Your task to perform on an android device: Open battery settings Image 0: 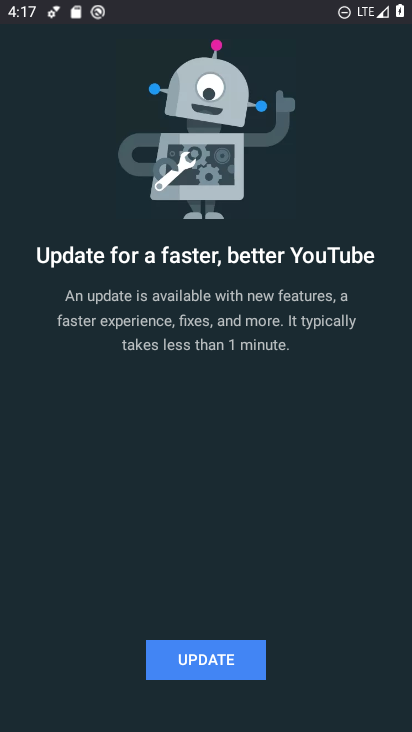
Step 0: press home button
Your task to perform on an android device: Open battery settings Image 1: 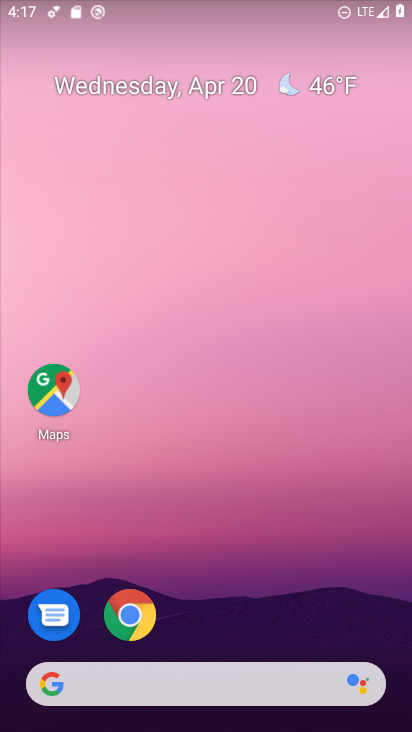
Step 1: drag from (286, 448) to (351, 78)
Your task to perform on an android device: Open battery settings Image 2: 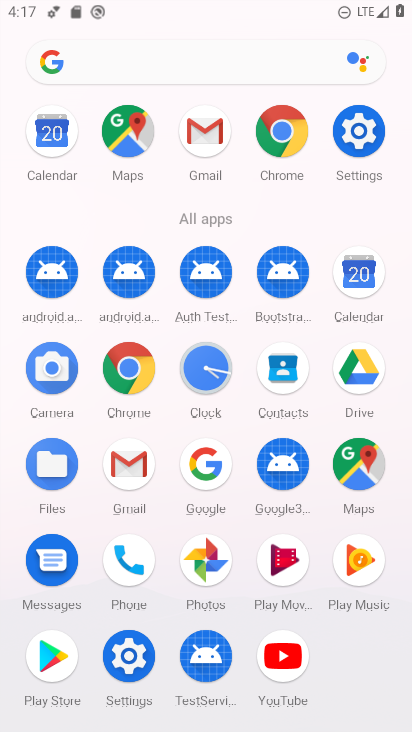
Step 2: click (361, 125)
Your task to perform on an android device: Open battery settings Image 3: 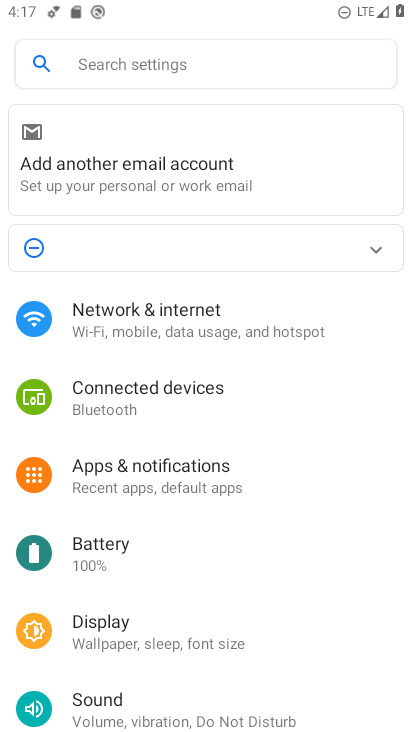
Step 3: click (113, 551)
Your task to perform on an android device: Open battery settings Image 4: 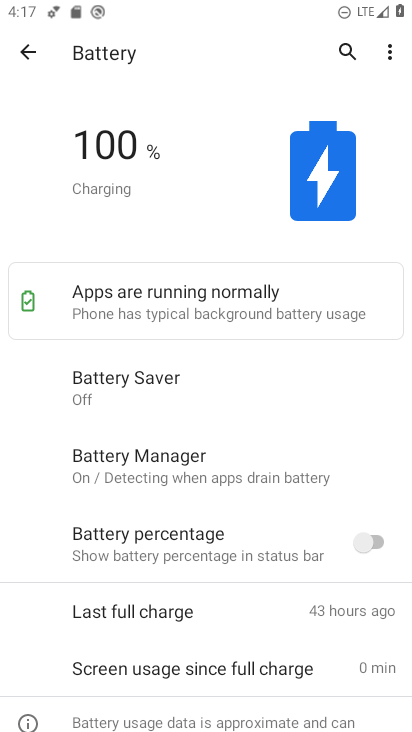
Step 4: task complete